Your task to perform on an android device: delete the emails in spam in the gmail app Image 0: 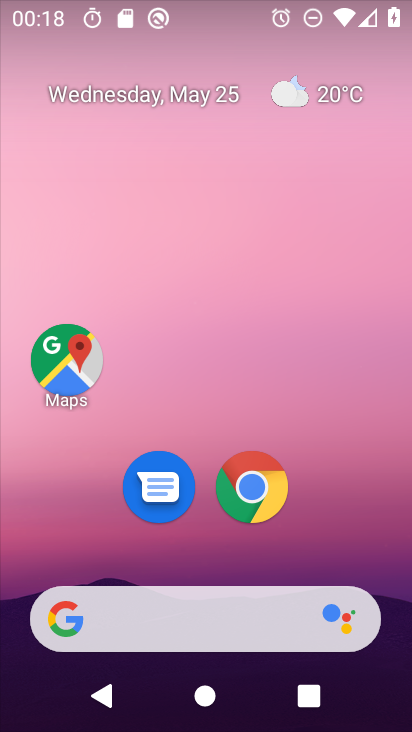
Step 0: drag from (347, 541) to (364, 26)
Your task to perform on an android device: delete the emails in spam in the gmail app Image 1: 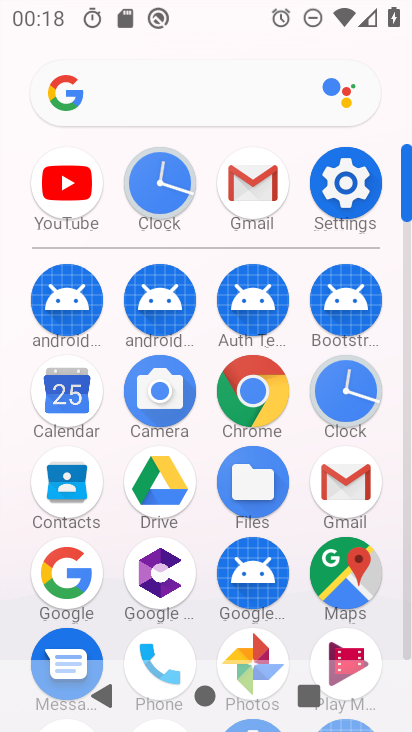
Step 1: click (255, 197)
Your task to perform on an android device: delete the emails in spam in the gmail app Image 2: 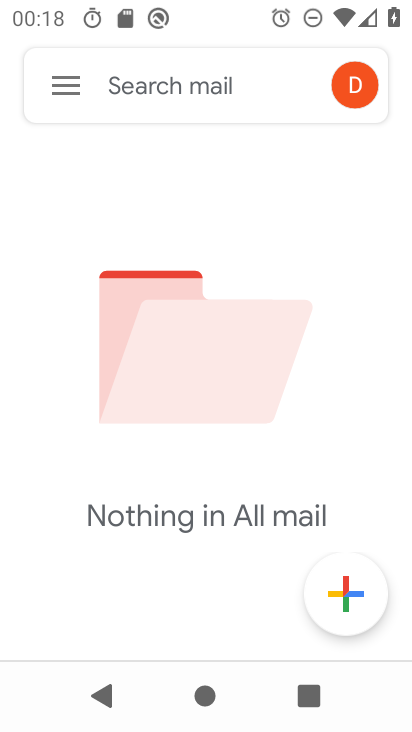
Step 2: click (55, 92)
Your task to perform on an android device: delete the emails in spam in the gmail app Image 3: 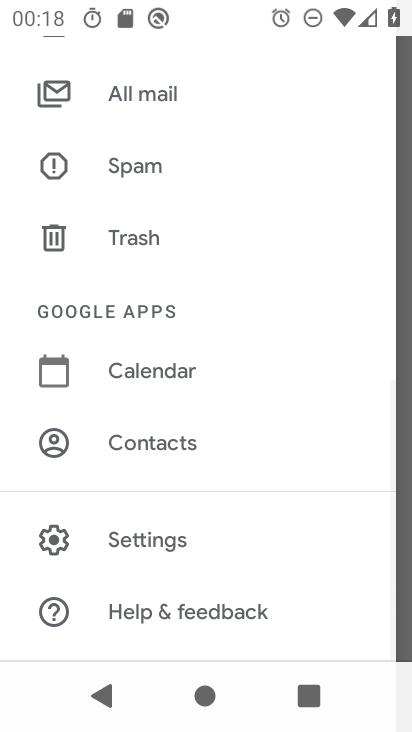
Step 3: click (134, 178)
Your task to perform on an android device: delete the emails in spam in the gmail app Image 4: 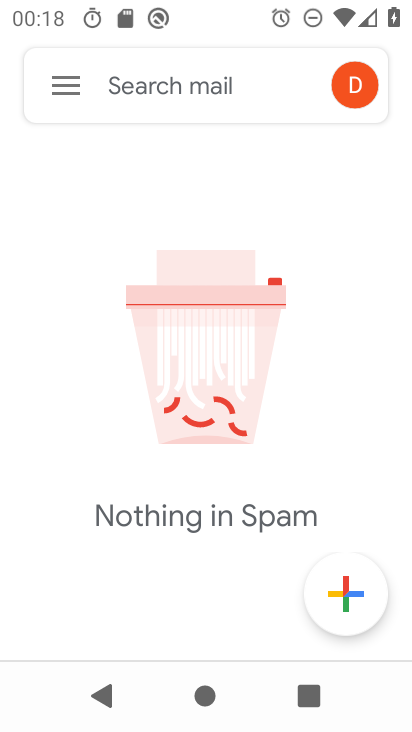
Step 4: task complete